Your task to perform on an android device: turn off improve location accuracy Image 0: 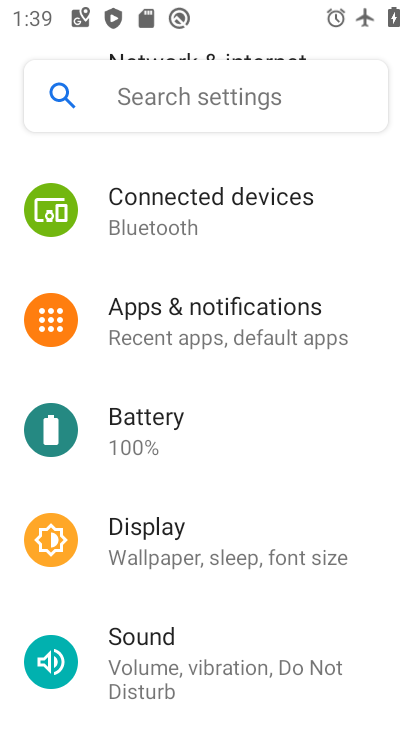
Step 0: drag from (177, 511) to (196, 401)
Your task to perform on an android device: turn off improve location accuracy Image 1: 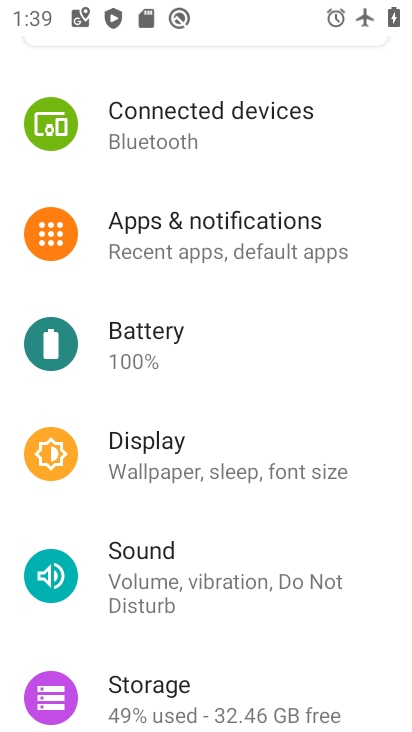
Step 1: drag from (152, 580) to (210, 276)
Your task to perform on an android device: turn off improve location accuracy Image 2: 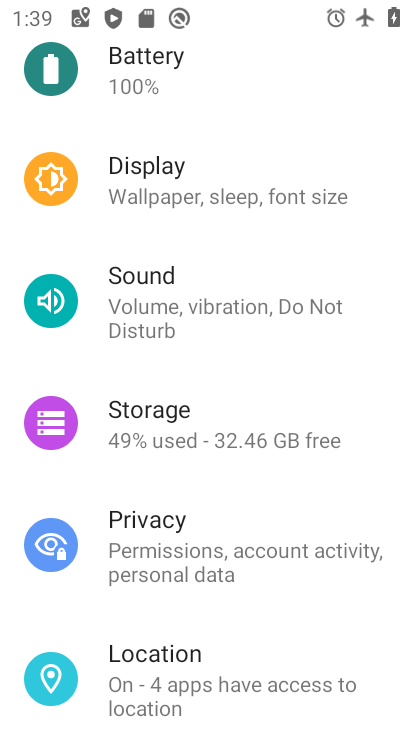
Step 2: click (220, 672)
Your task to perform on an android device: turn off improve location accuracy Image 3: 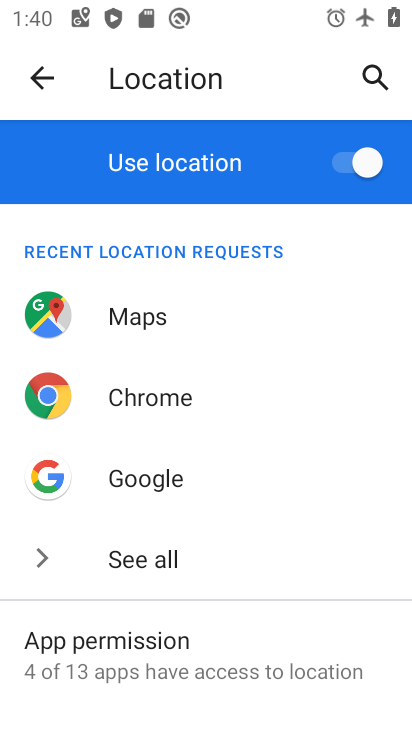
Step 3: drag from (209, 511) to (233, 322)
Your task to perform on an android device: turn off improve location accuracy Image 4: 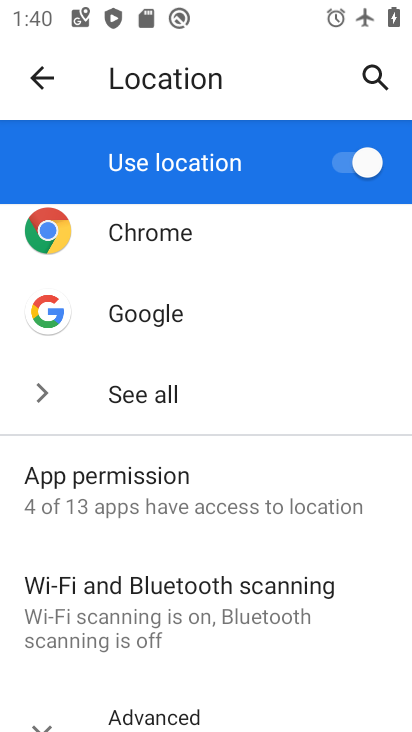
Step 4: drag from (178, 593) to (187, 266)
Your task to perform on an android device: turn off improve location accuracy Image 5: 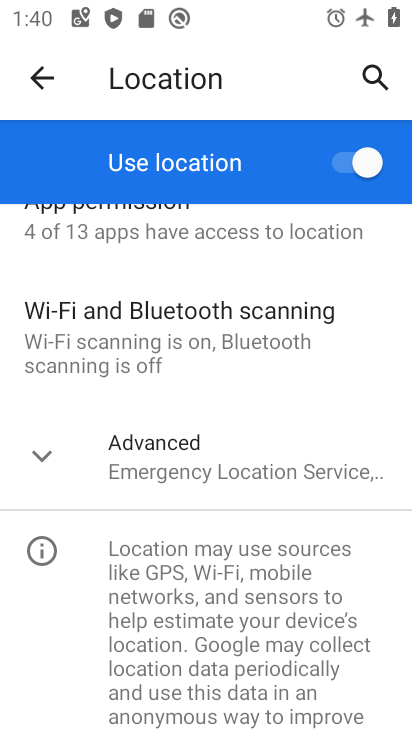
Step 5: click (191, 458)
Your task to perform on an android device: turn off improve location accuracy Image 6: 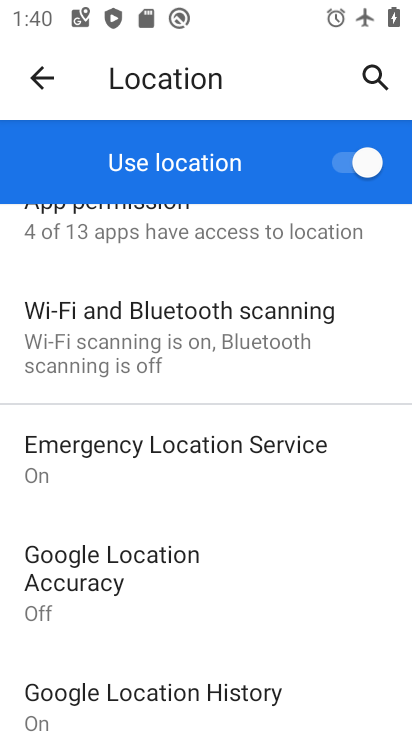
Step 6: click (179, 569)
Your task to perform on an android device: turn off improve location accuracy Image 7: 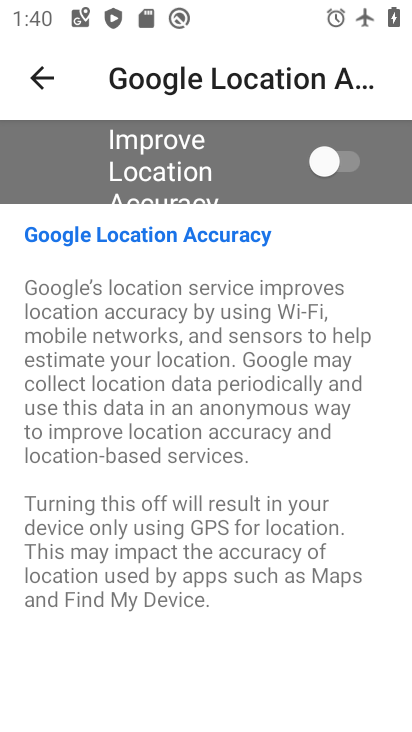
Step 7: task complete